Your task to perform on an android device: Open Youtube and go to the subscriptions tab Image 0: 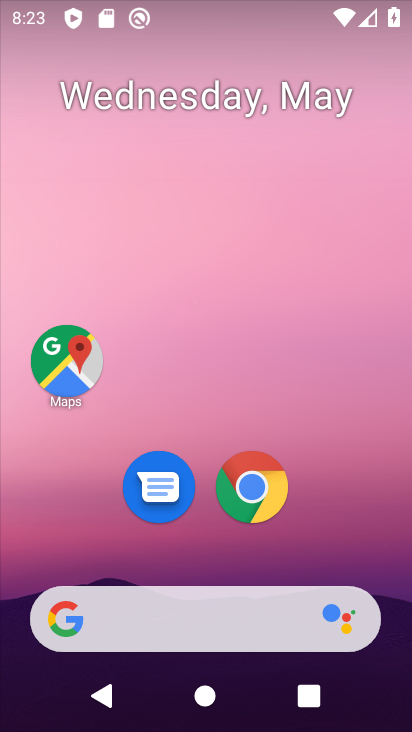
Step 0: drag from (213, 562) to (216, 38)
Your task to perform on an android device: Open Youtube and go to the subscriptions tab Image 1: 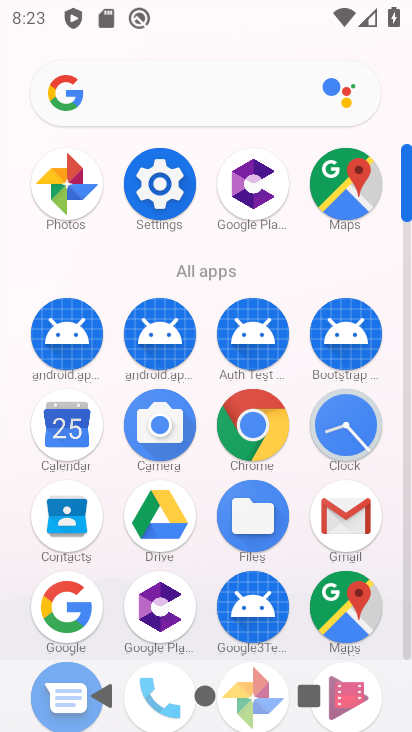
Step 1: drag from (203, 568) to (231, 62)
Your task to perform on an android device: Open Youtube and go to the subscriptions tab Image 2: 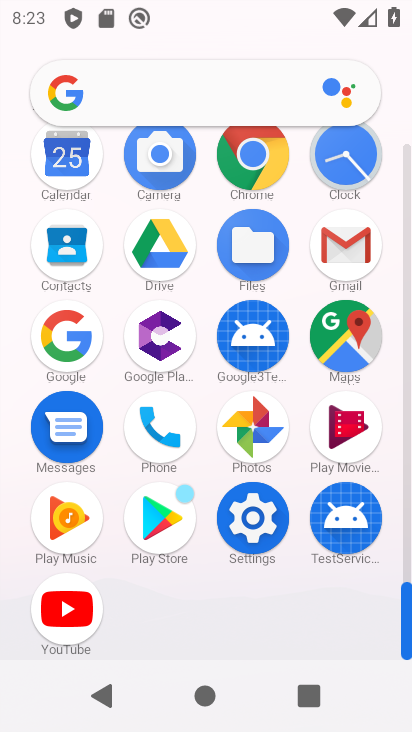
Step 2: click (65, 605)
Your task to perform on an android device: Open Youtube and go to the subscriptions tab Image 3: 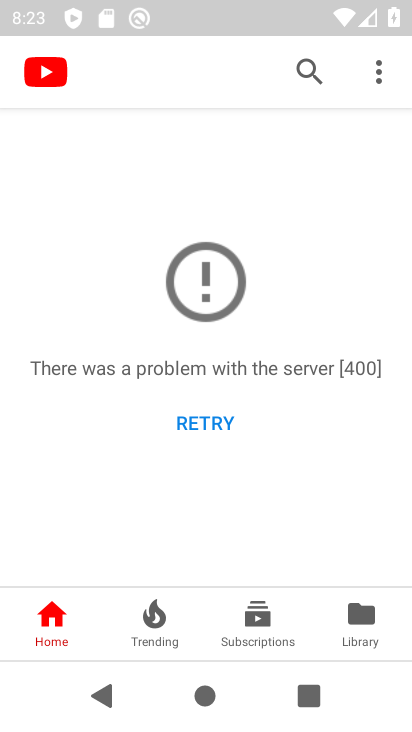
Step 3: click (257, 620)
Your task to perform on an android device: Open Youtube and go to the subscriptions tab Image 4: 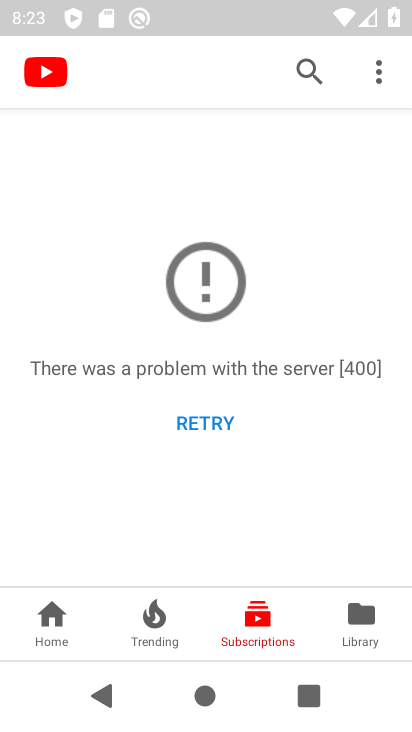
Step 4: task complete